Your task to perform on an android device: set the stopwatch Image 0: 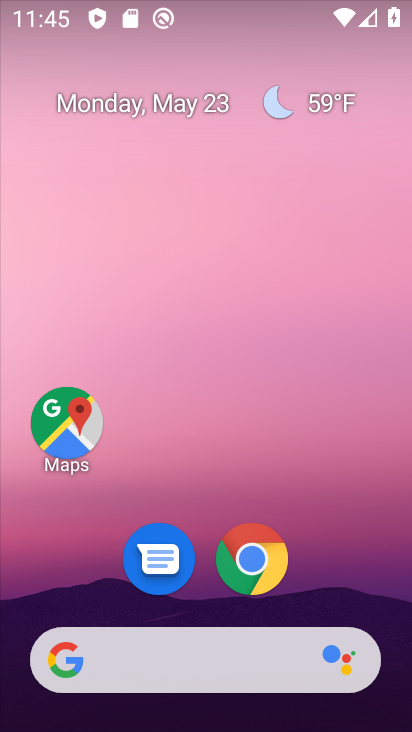
Step 0: drag from (389, 635) to (244, 45)
Your task to perform on an android device: set the stopwatch Image 1: 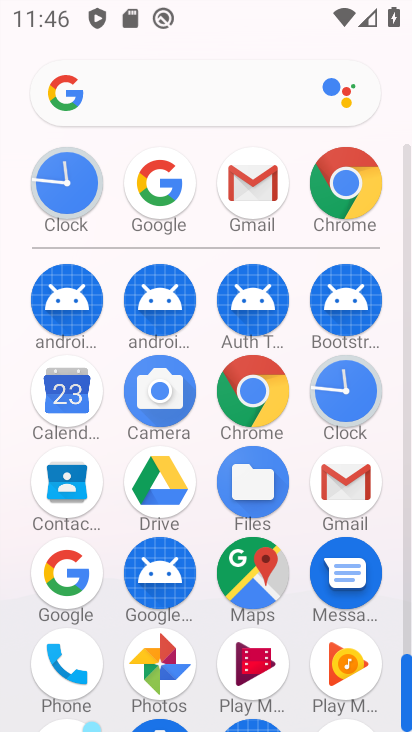
Step 1: click (345, 375)
Your task to perform on an android device: set the stopwatch Image 2: 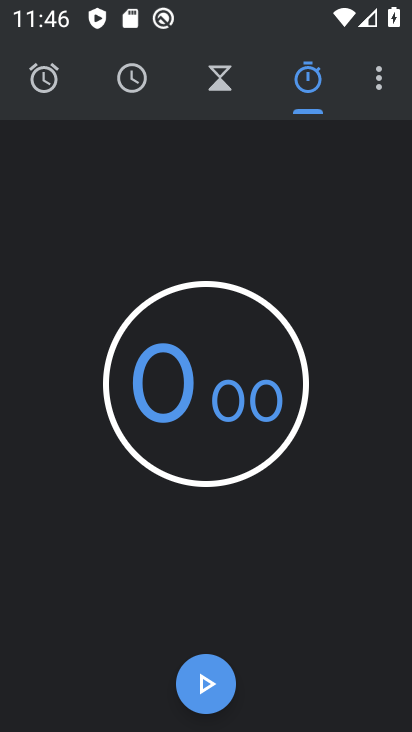
Step 2: task complete